Your task to perform on an android device: What's on my calendar tomorrow? Image 0: 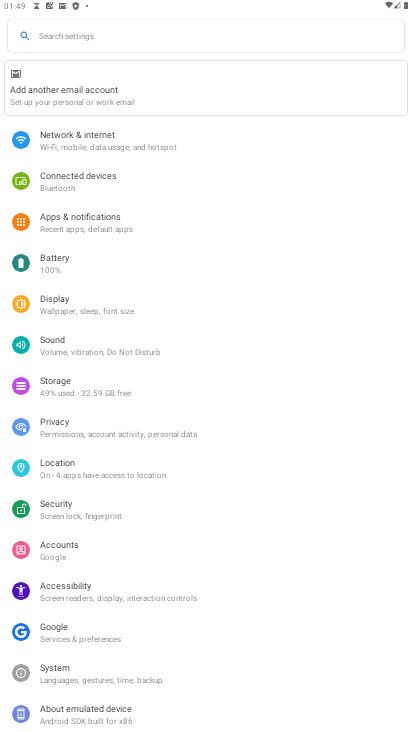
Step 0: press home button
Your task to perform on an android device: What's on my calendar tomorrow? Image 1: 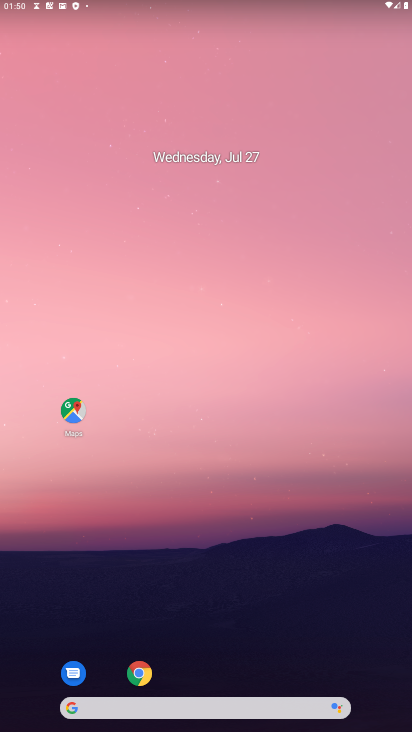
Step 1: drag from (163, 627) to (179, 230)
Your task to perform on an android device: What's on my calendar tomorrow? Image 2: 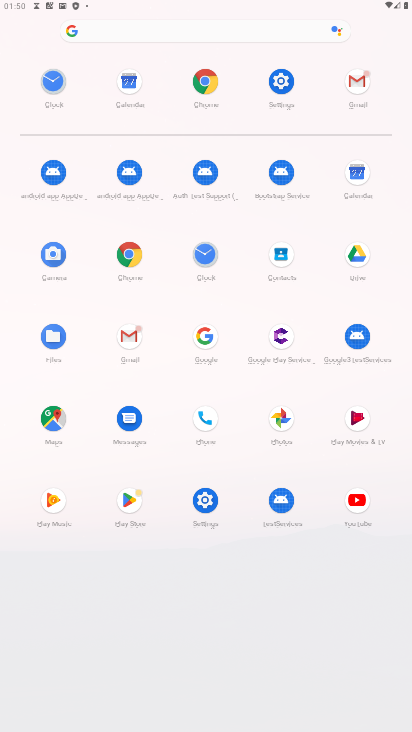
Step 2: click (349, 165)
Your task to perform on an android device: What's on my calendar tomorrow? Image 3: 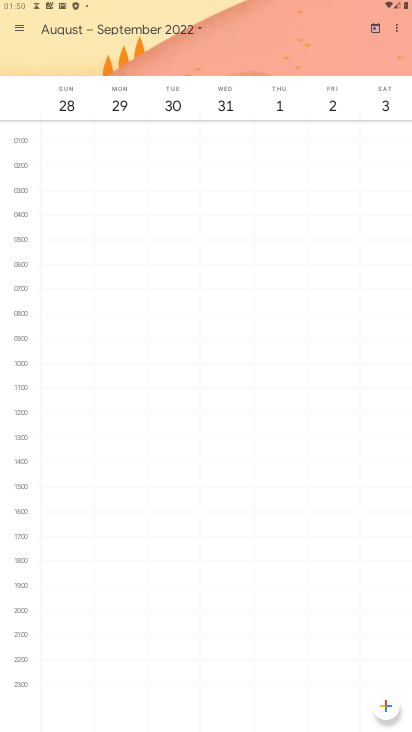
Step 3: click (18, 21)
Your task to perform on an android device: What's on my calendar tomorrow? Image 4: 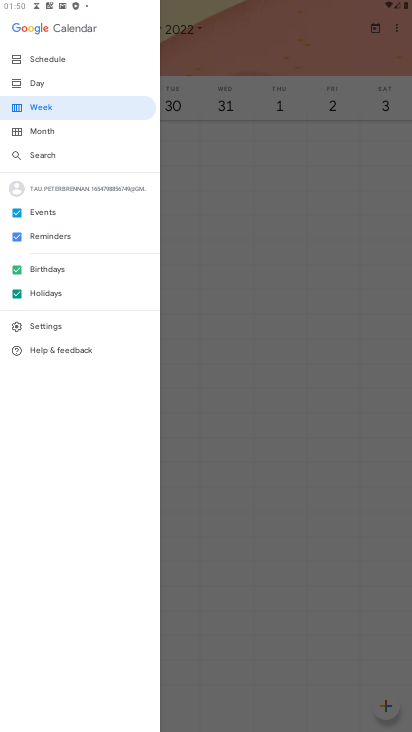
Step 4: click (46, 129)
Your task to perform on an android device: What's on my calendar tomorrow? Image 5: 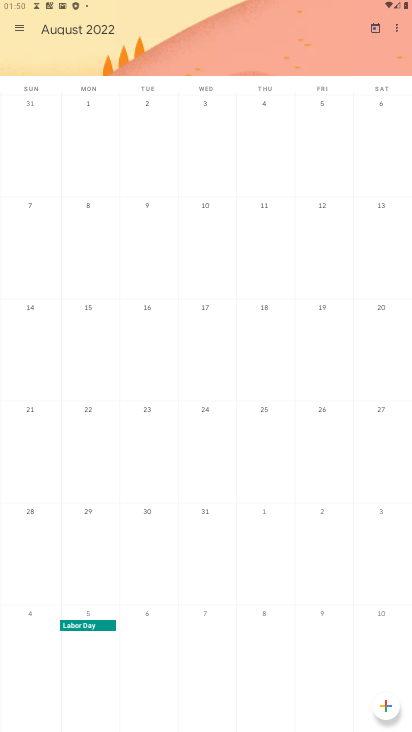
Step 5: drag from (19, 305) to (364, 372)
Your task to perform on an android device: What's on my calendar tomorrow? Image 6: 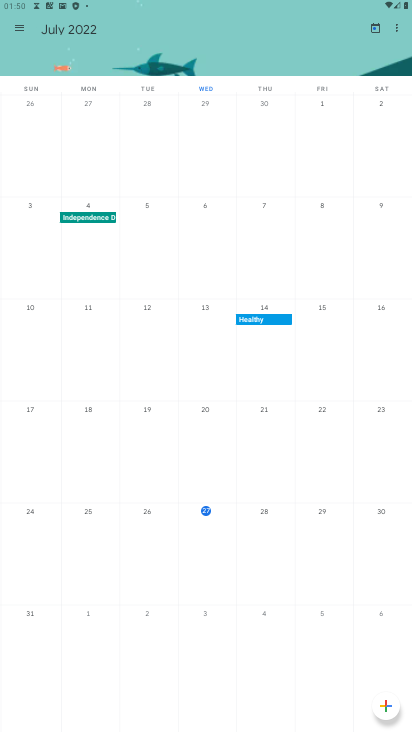
Step 6: click (268, 532)
Your task to perform on an android device: What's on my calendar tomorrow? Image 7: 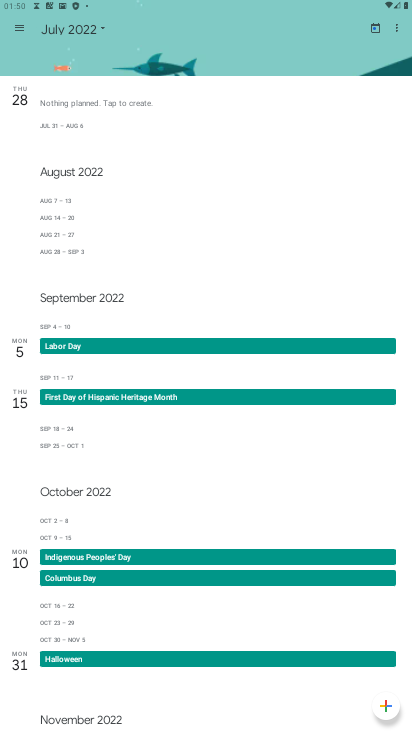
Step 7: task complete